Your task to perform on an android device: allow cookies in the chrome app Image 0: 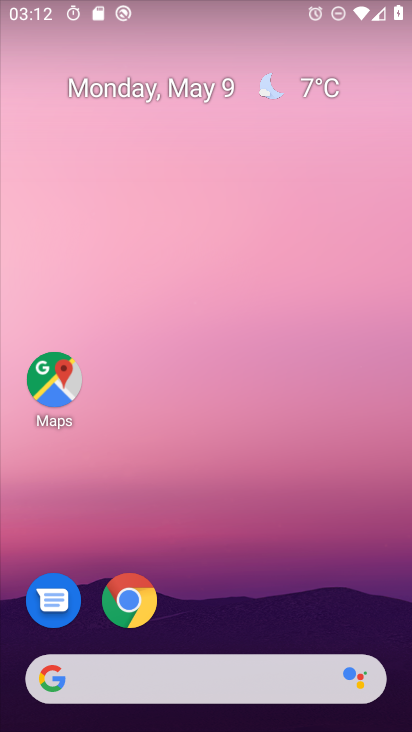
Step 0: click (324, 85)
Your task to perform on an android device: allow cookies in the chrome app Image 1: 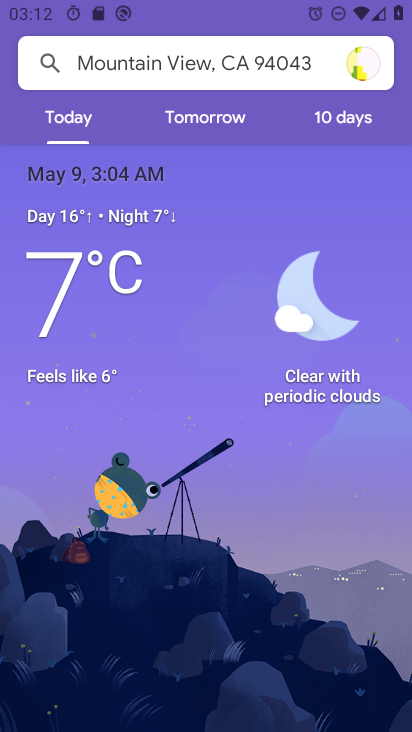
Step 1: click (218, 120)
Your task to perform on an android device: allow cookies in the chrome app Image 2: 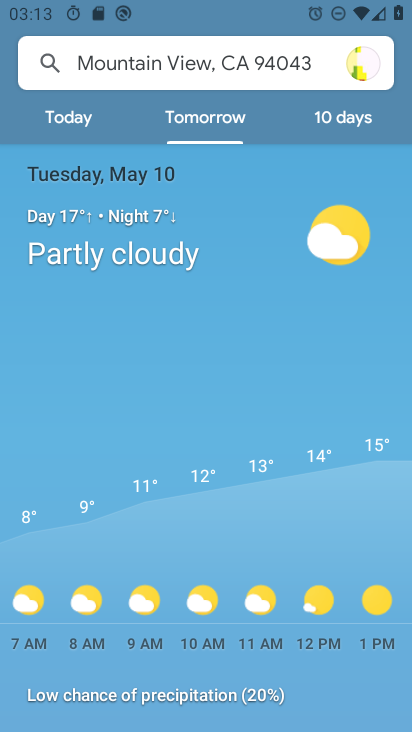
Step 2: press home button
Your task to perform on an android device: allow cookies in the chrome app Image 3: 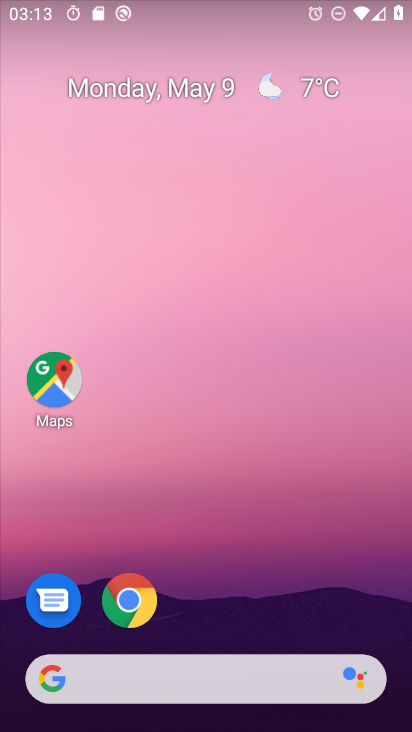
Step 3: click (115, 590)
Your task to perform on an android device: allow cookies in the chrome app Image 4: 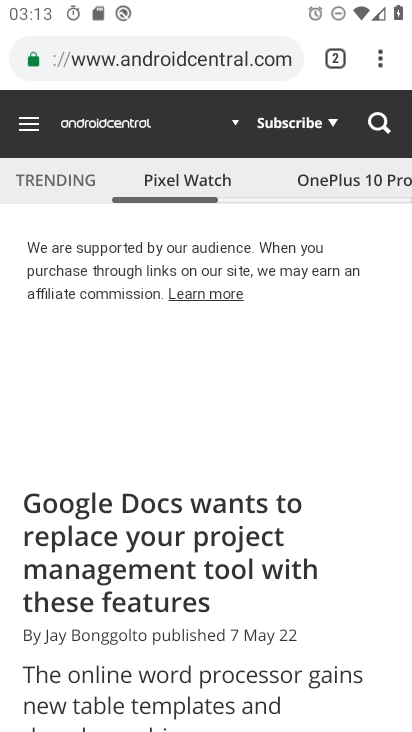
Step 4: click (395, 67)
Your task to perform on an android device: allow cookies in the chrome app Image 5: 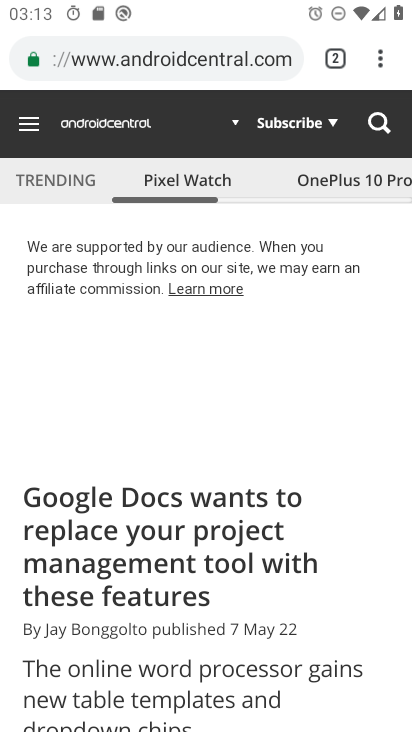
Step 5: click (395, 67)
Your task to perform on an android device: allow cookies in the chrome app Image 6: 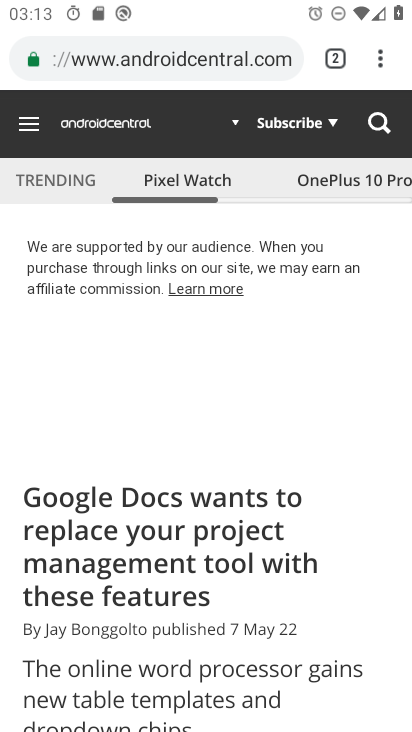
Step 6: drag from (395, 67) to (305, 633)
Your task to perform on an android device: allow cookies in the chrome app Image 7: 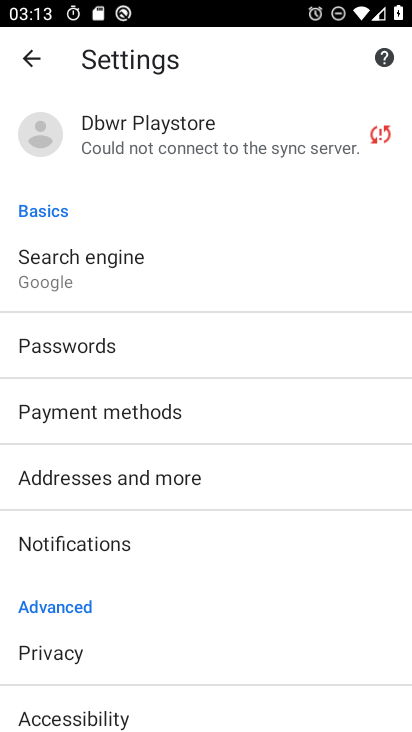
Step 7: drag from (150, 629) to (154, 237)
Your task to perform on an android device: allow cookies in the chrome app Image 8: 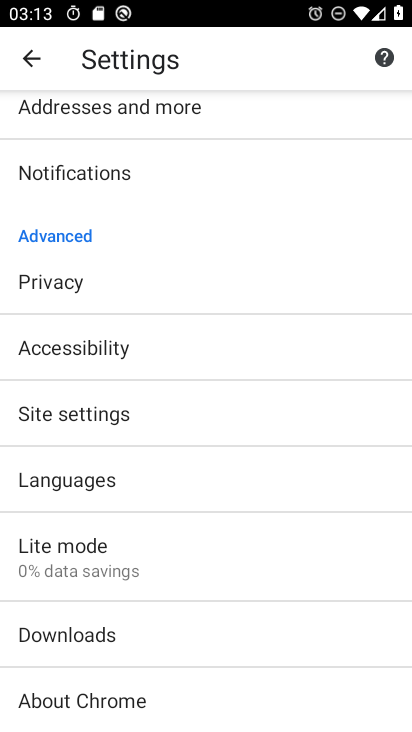
Step 8: click (166, 425)
Your task to perform on an android device: allow cookies in the chrome app Image 9: 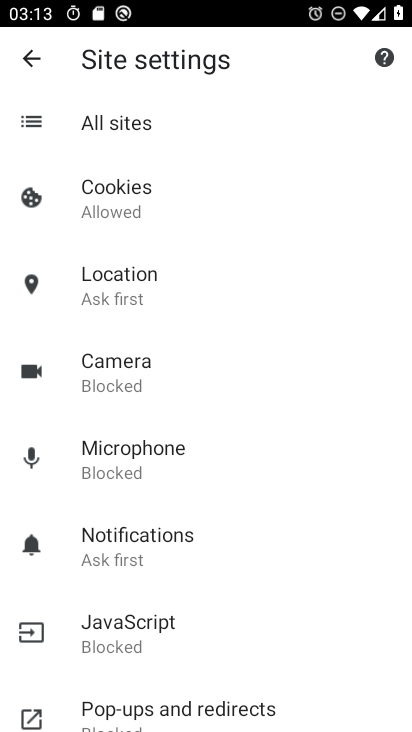
Step 9: click (143, 195)
Your task to perform on an android device: allow cookies in the chrome app Image 10: 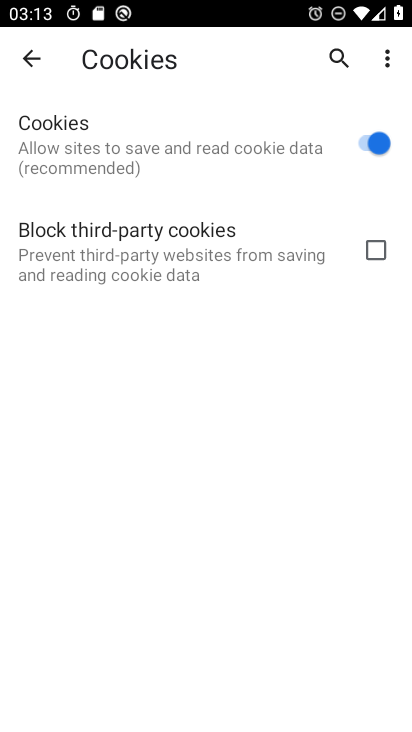
Step 10: task complete